Your task to perform on an android device: turn off location history Image 0: 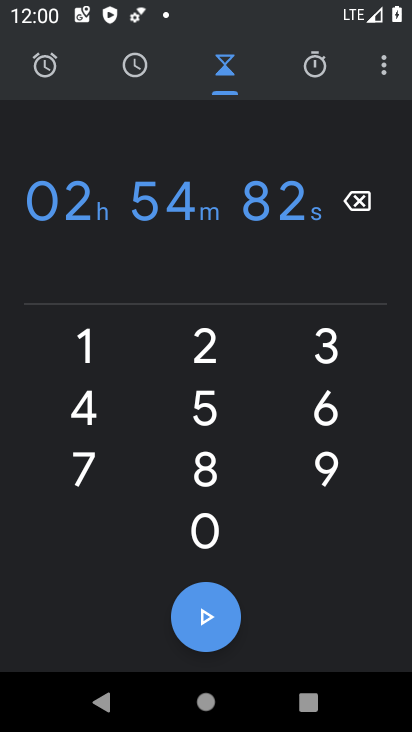
Step 0: press home button
Your task to perform on an android device: turn off location history Image 1: 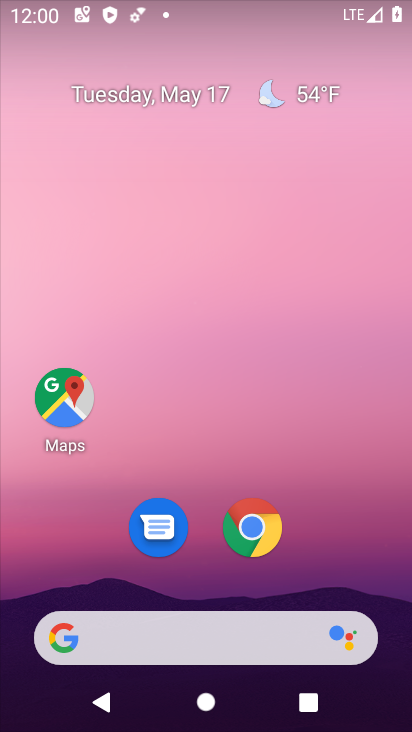
Step 1: drag from (162, 665) to (199, 218)
Your task to perform on an android device: turn off location history Image 2: 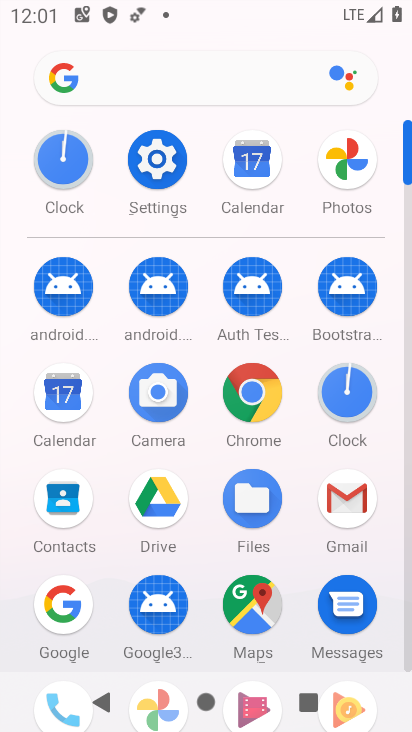
Step 2: click (160, 168)
Your task to perform on an android device: turn off location history Image 3: 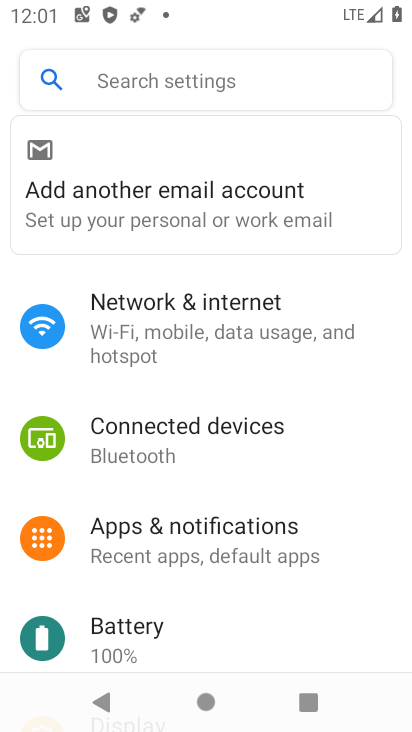
Step 3: click (151, 88)
Your task to perform on an android device: turn off location history Image 4: 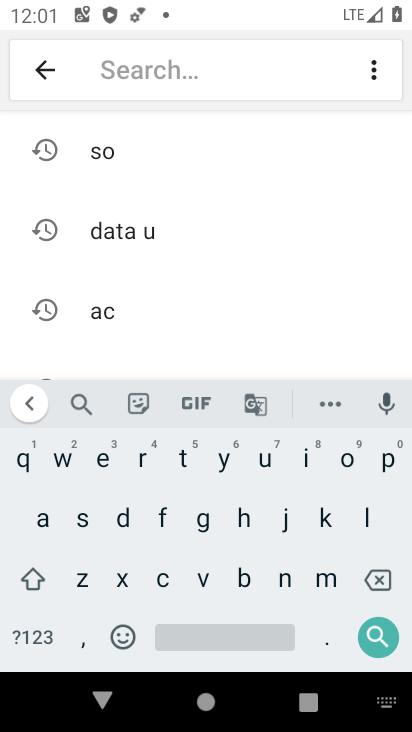
Step 4: click (371, 522)
Your task to perform on an android device: turn off location history Image 5: 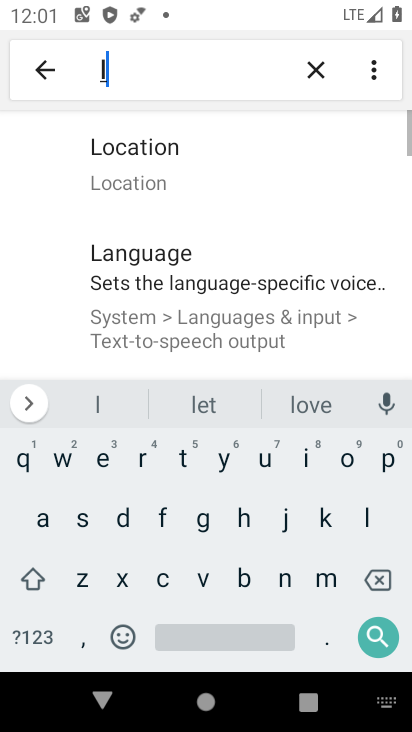
Step 5: click (339, 467)
Your task to perform on an android device: turn off location history Image 6: 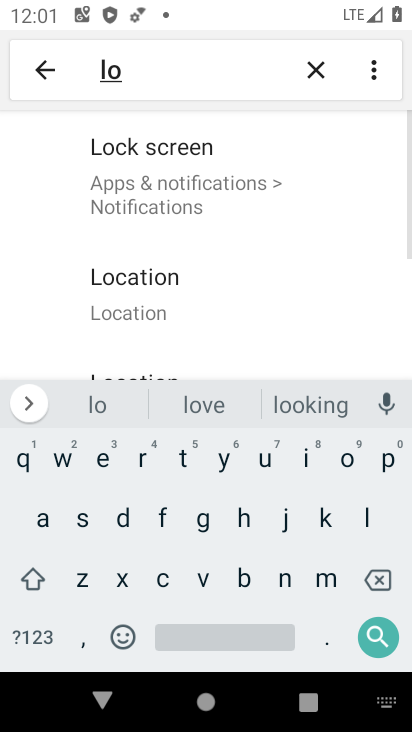
Step 6: click (148, 292)
Your task to perform on an android device: turn off location history Image 7: 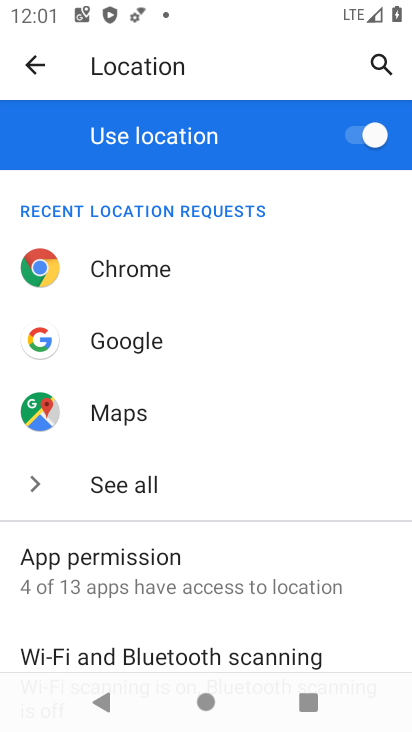
Step 7: drag from (172, 577) to (265, 371)
Your task to perform on an android device: turn off location history Image 8: 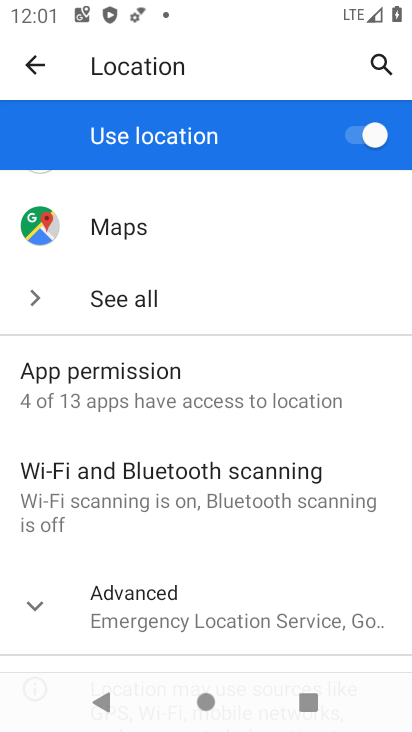
Step 8: click (54, 623)
Your task to perform on an android device: turn off location history Image 9: 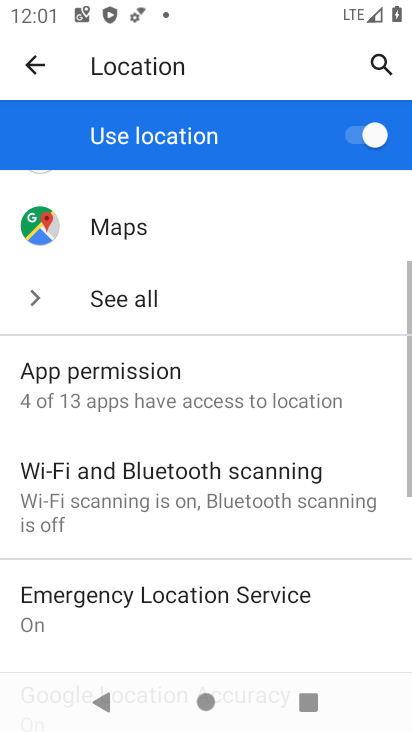
Step 9: drag from (196, 488) to (253, 353)
Your task to perform on an android device: turn off location history Image 10: 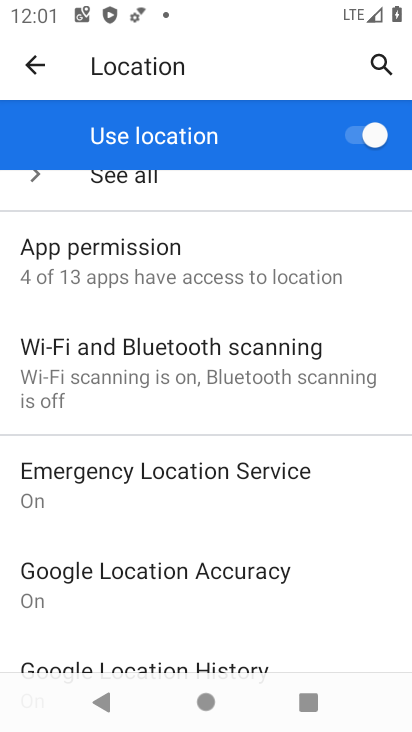
Step 10: drag from (213, 592) to (259, 399)
Your task to perform on an android device: turn off location history Image 11: 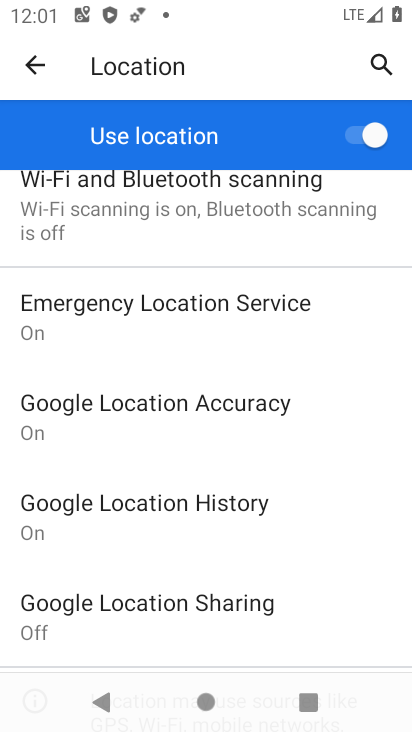
Step 11: click (178, 595)
Your task to perform on an android device: turn off location history Image 12: 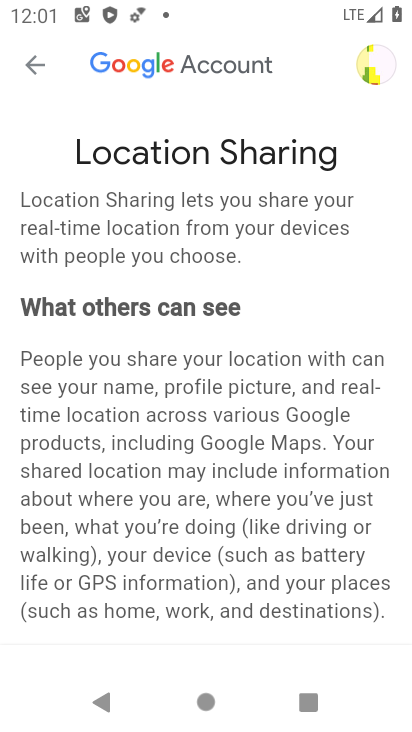
Step 12: task complete